Your task to perform on an android device: open app "Google Play Games" (install if not already installed) Image 0: 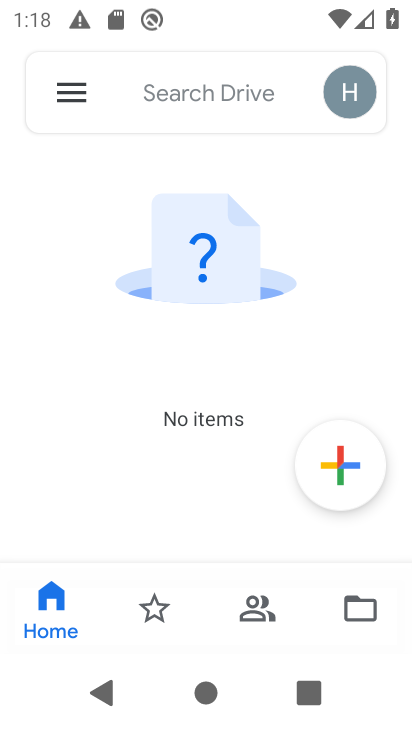
Step 0: press home button
Your task to perform on an android device: open app "Google Play Games" (install if not already installed) Image 1: 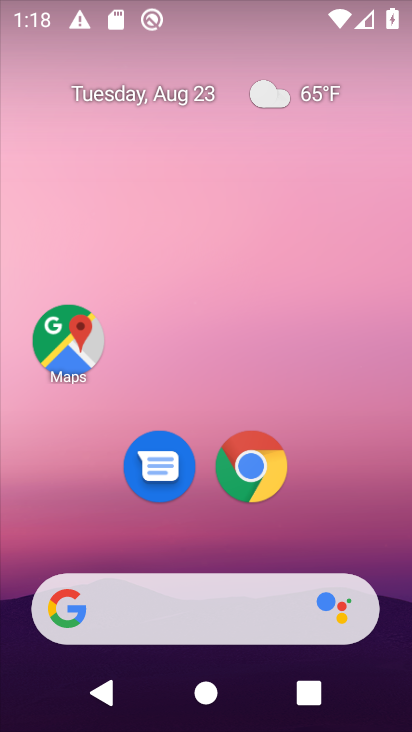
Step 1: drag from (155, 564) to (176, 147)
Your task to perform on an android device: open app "Google Play Games" (install if not already installed) Image 2: 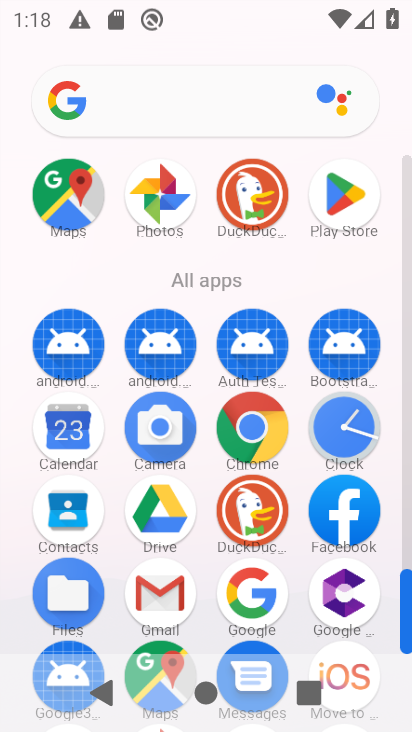
Step 2: click (330, 196)
Your task to perform on an android device: open app "Google Play Games" (install if not already installed) Image 3: 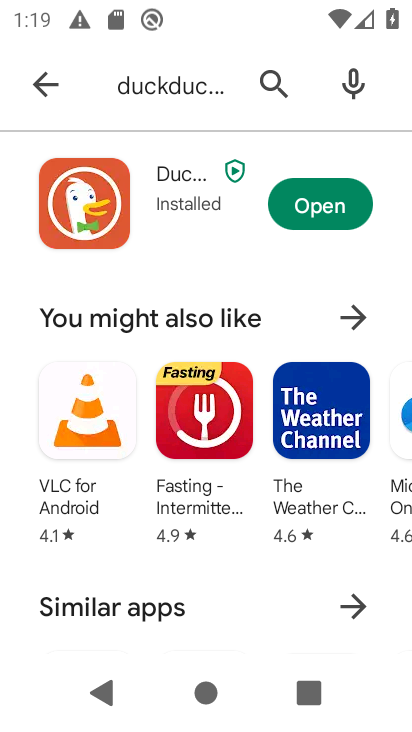
Step 3: click (55, 74)
Your task to perform on an android device: open app "Google Play Games" (install if not already installed) Image 4: 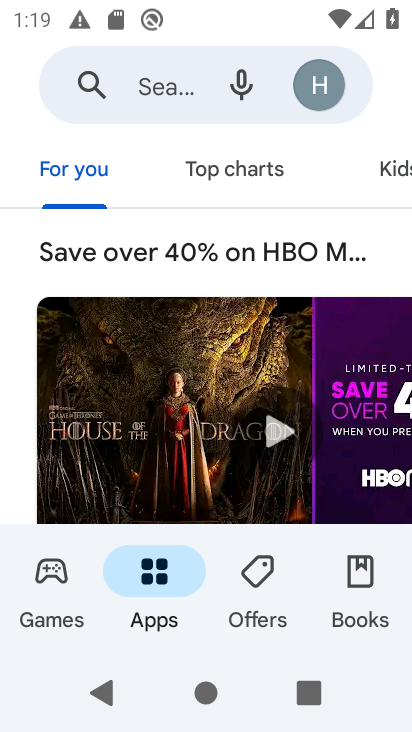
Step 4: click (199, 76)
Your task to perform on an android device: open app "Google Play Games" (install if not already installed) Image 5: 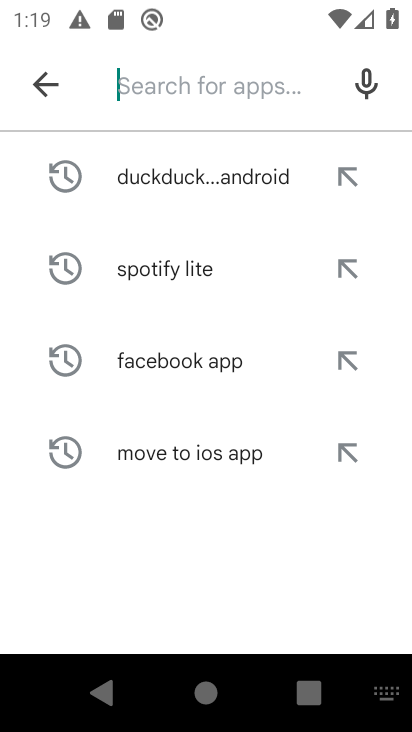
Step 5: type "Google Play Games "
Your task to perform on an android device: open app "Google Play Games" (install if not already installed) Image 6: 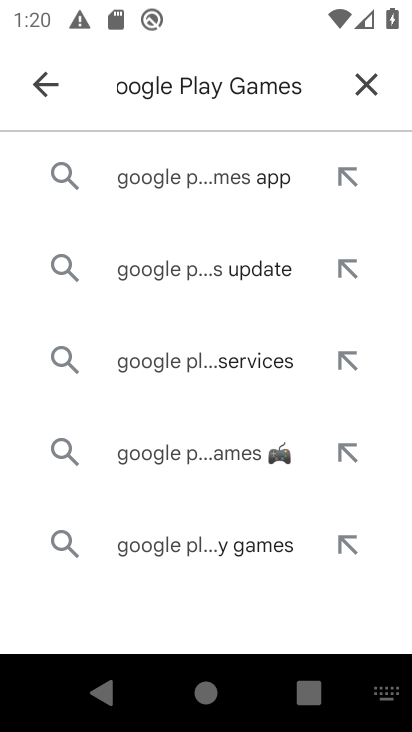
Step 6: click (174, 192)
Your task to perform on an android device: open app "Google Play Games" (install if not already installed) Image 7: 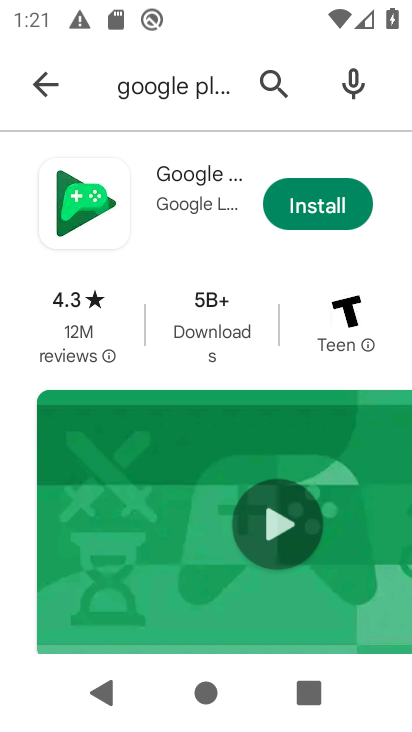
Step 7: click (306, 204)
Your task to perform on an android device: open app "Google Play Games" (install if not already installed) Image 8: 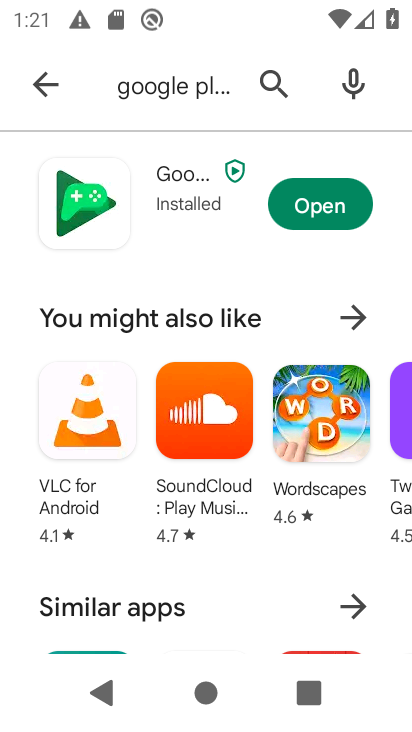
Step 8: click (334, 194)
Your task to perform on an android device: open app "Google Play Games" (install if not already installed) Image 9: 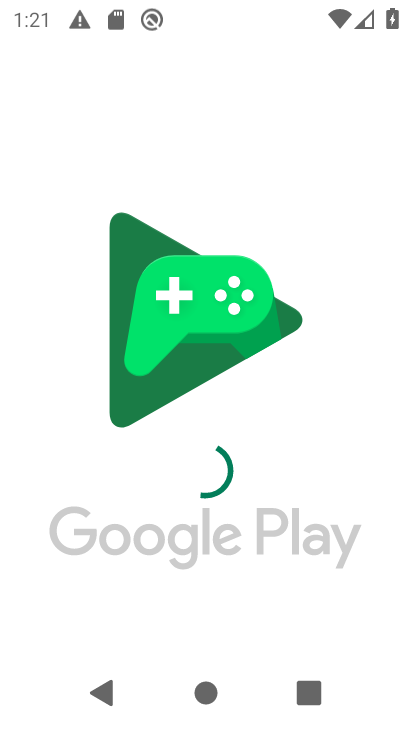
Step 9: task complete